Your task to perform on an android device: change alarm snooze length Image 0: 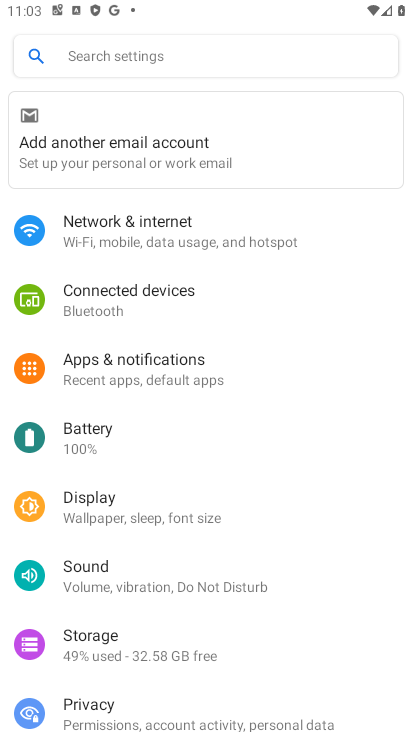
Step 0: press home button
Your task to perform on an android device: change alarm snooze length Image 1: 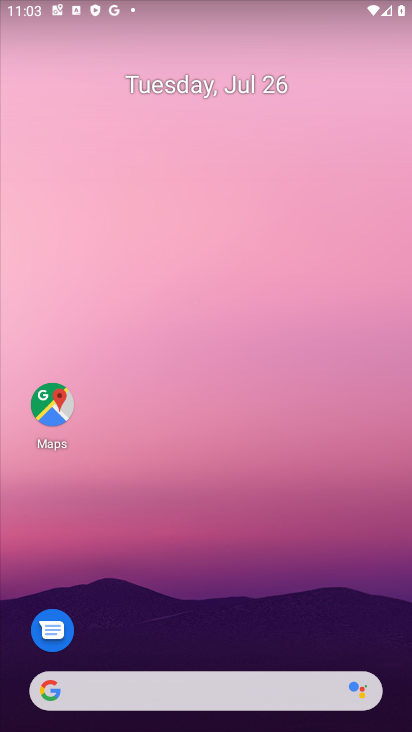
Step 1: drag from (188, 632) to (334, 0)
Your task to perform on an android device: change alarm snooze length Image 2: 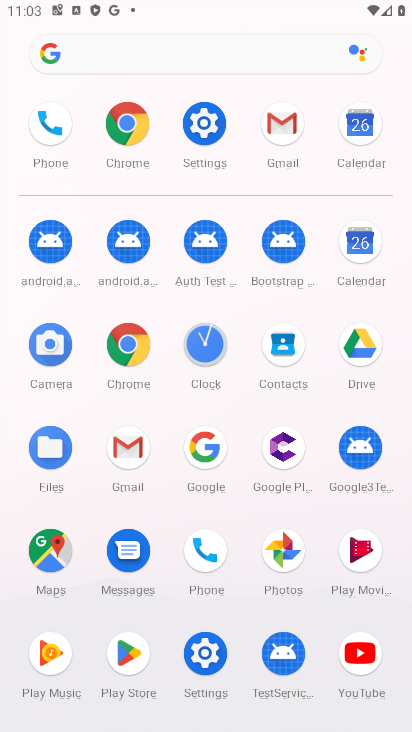
Step 2: click (218, 327)
Your task to perform on an android device: change alarm snooze length Image 3: 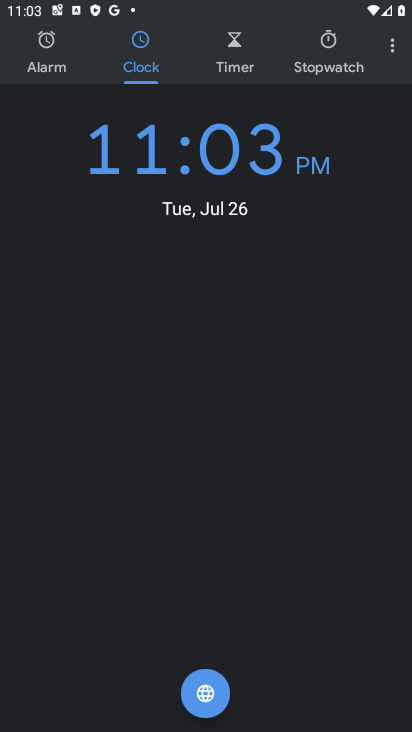
Step 3: click (392, 38)
Your task to perform on an android device: change alarm snooze length Image 4: 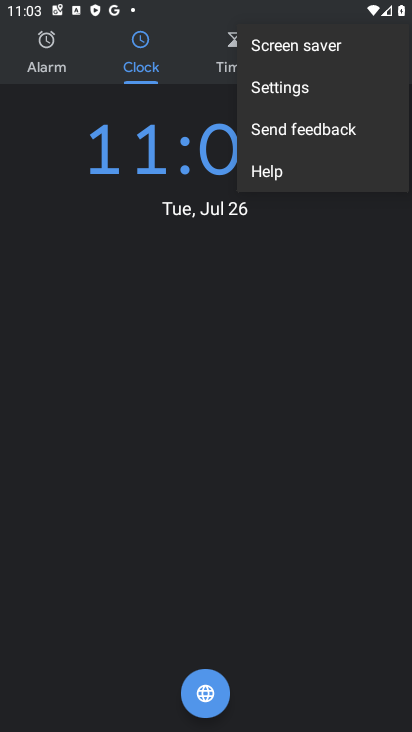
Step 4: click (247, 99)
Your task to perform on an android device: change alarm snooze length Image 5: 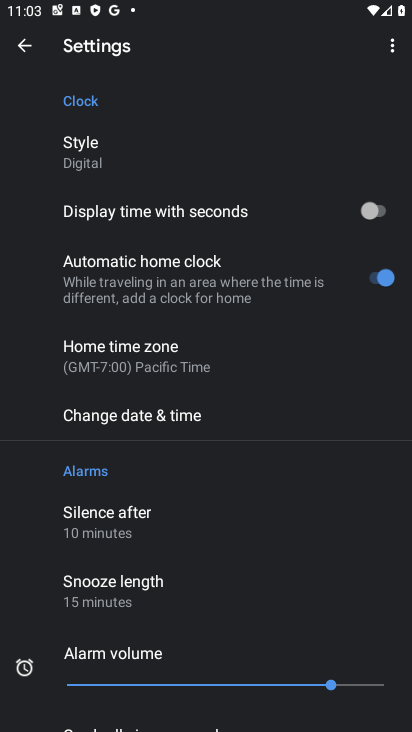
Step 5: click (92, 594)
Your task to perform on an android device: change alarm snooze length Image 6: 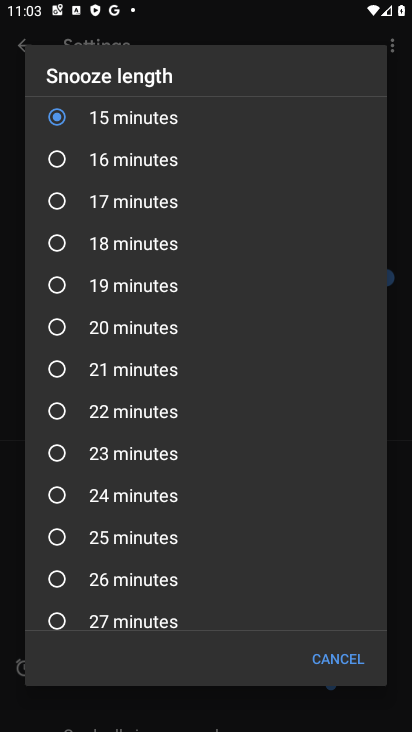
Step 6: click (105, 370)
Your task to perform on an android device: change alarm snooze length Image 7: 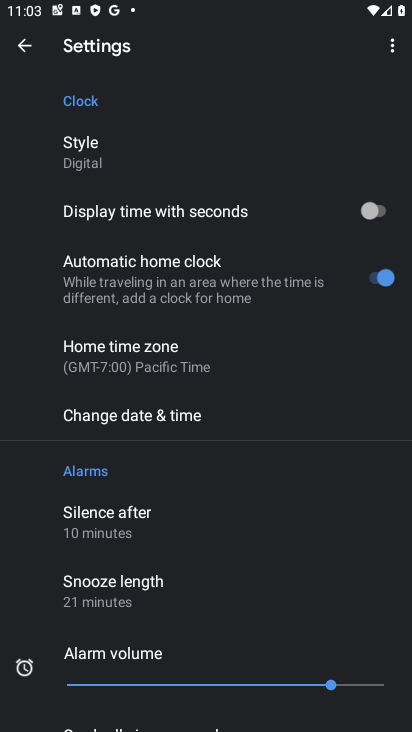
Step 7: task complete